Your task to perform on an android device: turn on improve location accuracy Image 0: 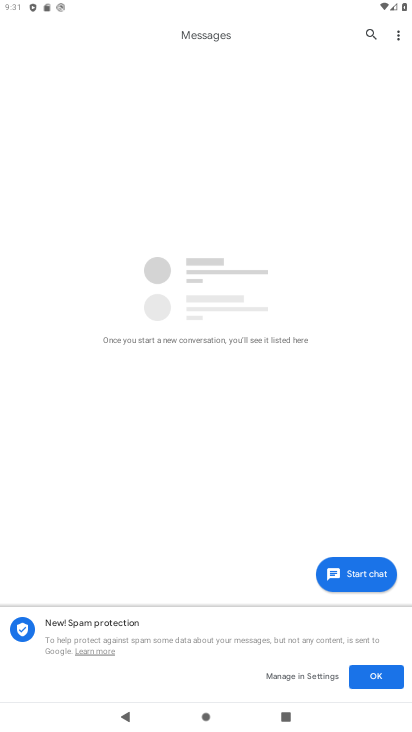
Step 0: press home button
Your task to perform on an android device: turn on improve location accuracy Image 1: 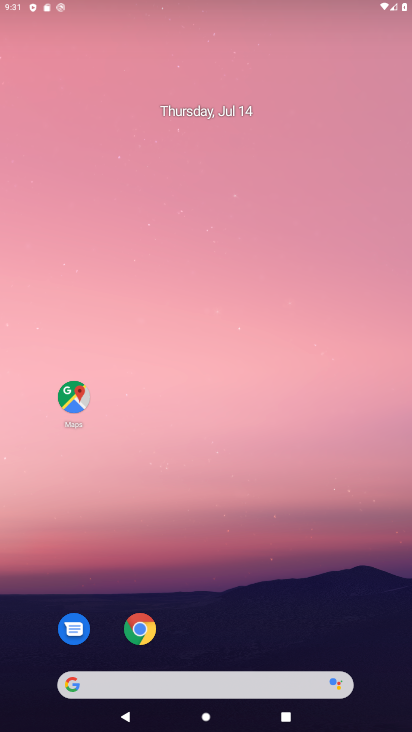
Step 1: drag from (200, 640) to (310, 95)
Your task to perform on an android device: turn on improve location accuracy Image 2: 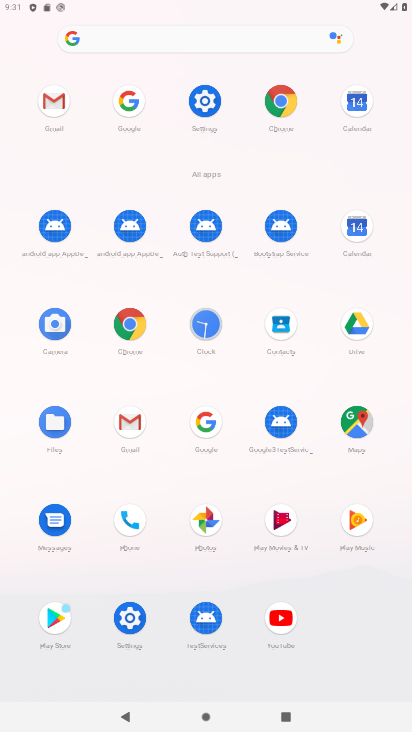
Step 2: click (207, 103)
Your task to perform on an android device: turn on improve location accuracy Image 3: 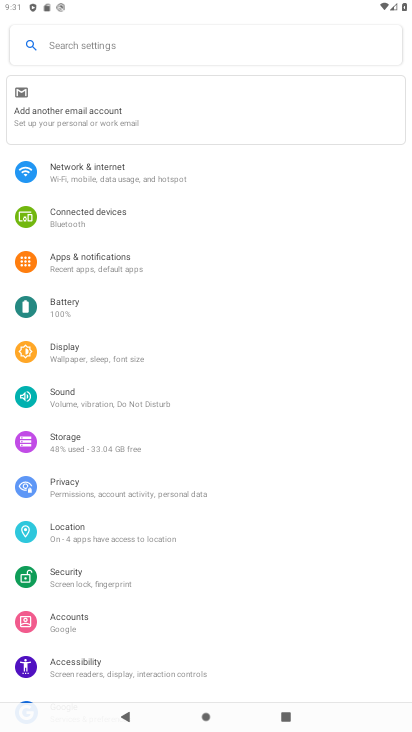
Step 3: click (91, 526)
Your task to perform on an android device: turn on improve location accuracy Image 4: 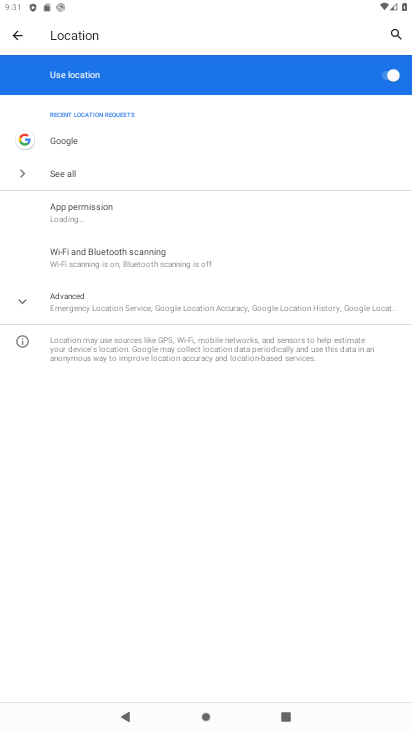
Step 4: click (85, 300)
Your task to perform on an android device: turn on improve location accuracy Image 5: 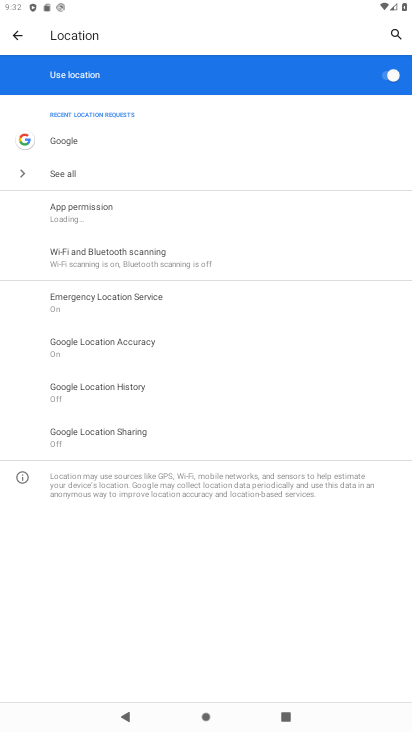
Step 5: click (99, 341)
Your task to perform on an android device: turn on improve location accuracy Image 6: 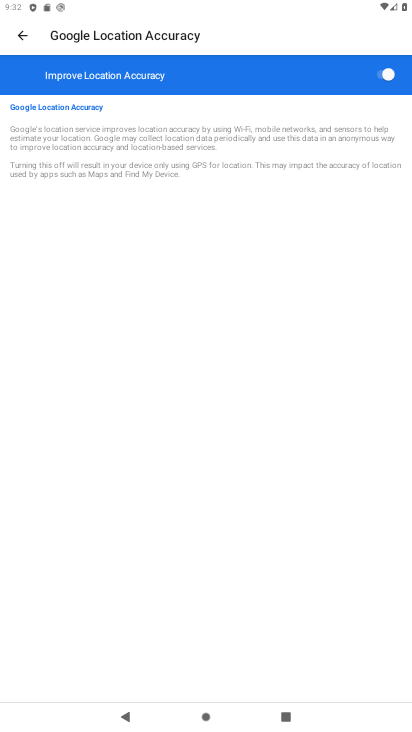
Step 6: task complete